Your task to perform on an android device: turn pop-ups off in chrome Image 0: 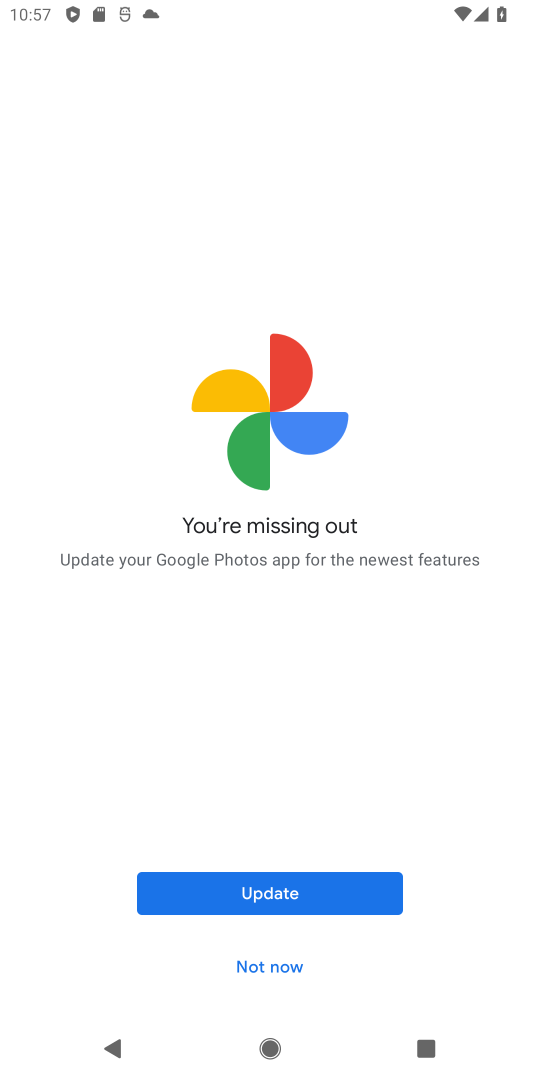
Step 0: press back button
Your task to perform on an android device: turn pop-ups off in chrome Image 1: 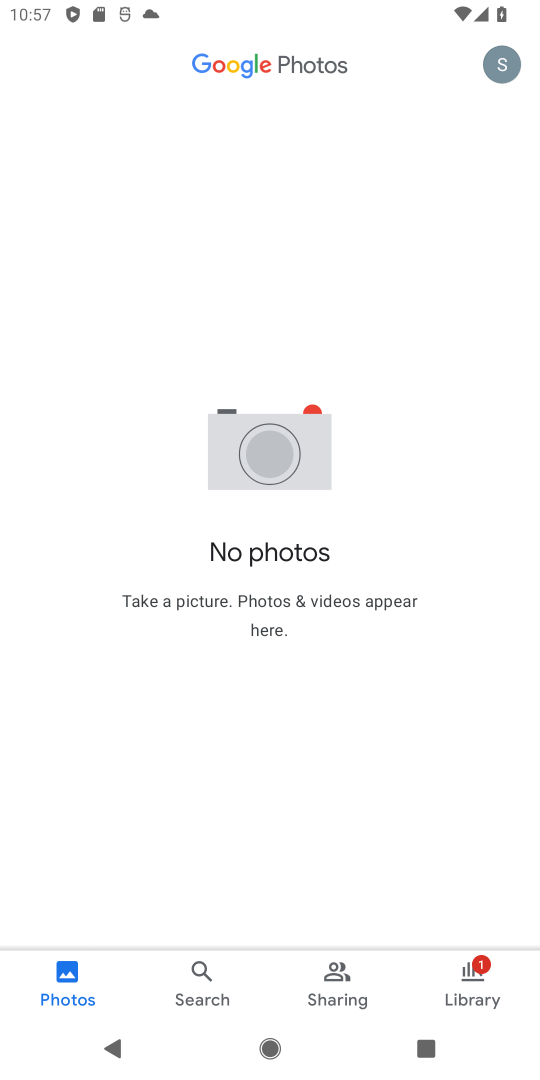
Step 1: press back button
Your task to perform on an android device: turn pop-ups off in chrome Image 2: 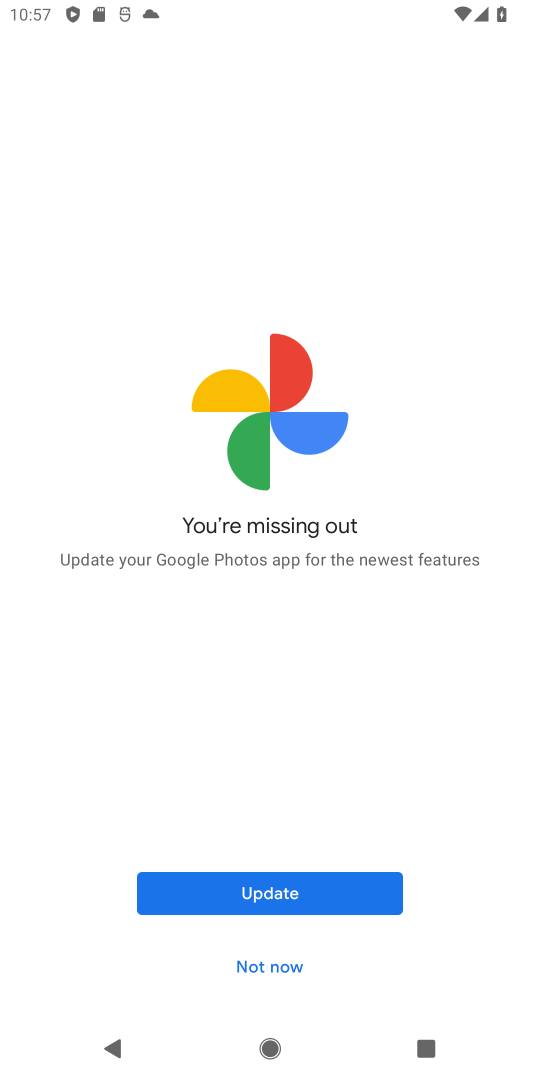
Step 2: press home button
Your task to perform on an android device: turn pop-ups off in chrome Image 3: 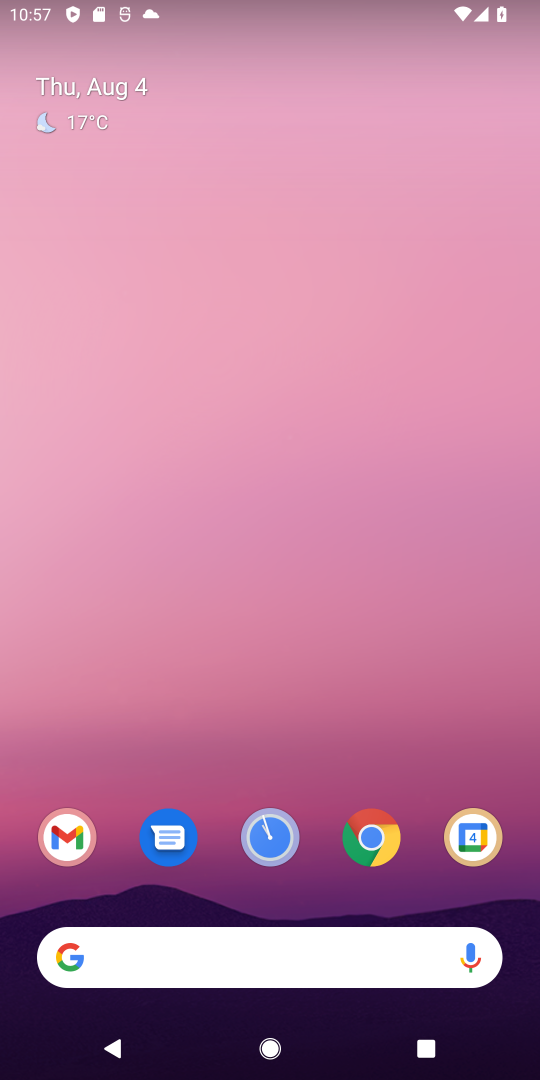
Step 3: drag from (475, 811) to (256, 105)
Your task to perform on an android device: turn pop-ups off in chrome Image 4: 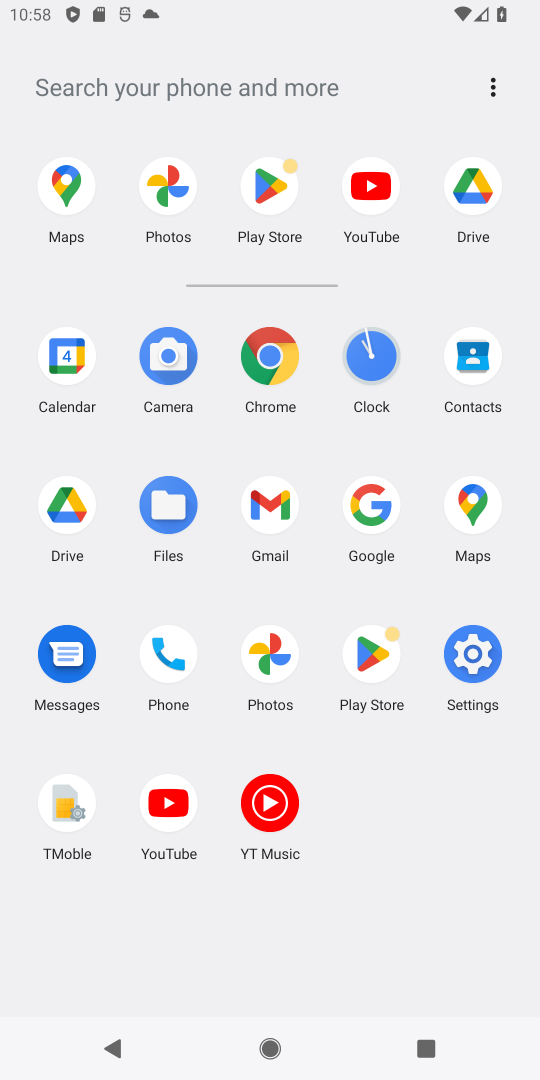
Step 4: click (258, 343)
Your task to perform on an android device: turn pop-ups off in chrome Image 5: 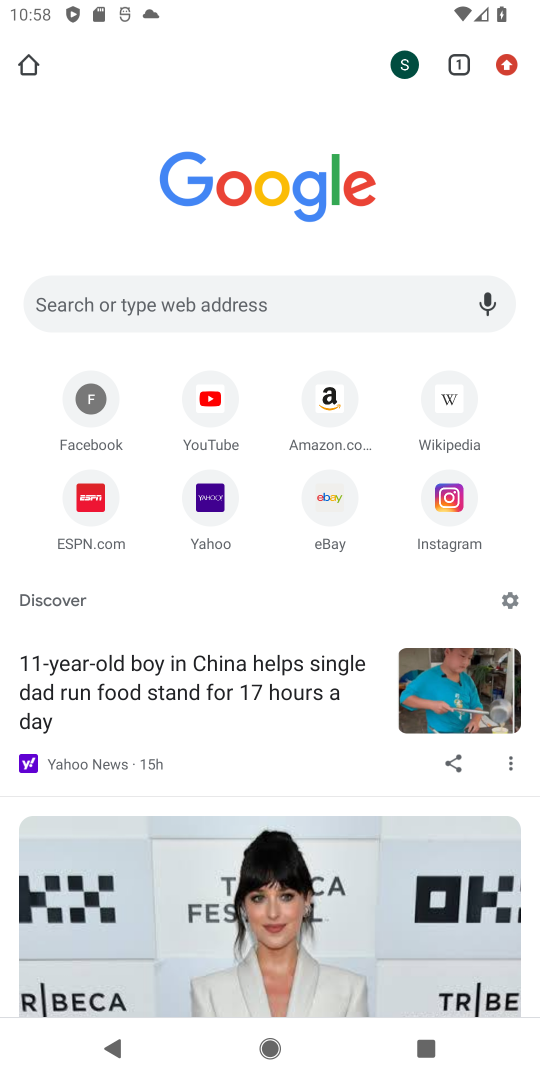
Step 5: click (500, 68)
Your task to perform on an android device: turn pop-ups off in chrome Image 6: 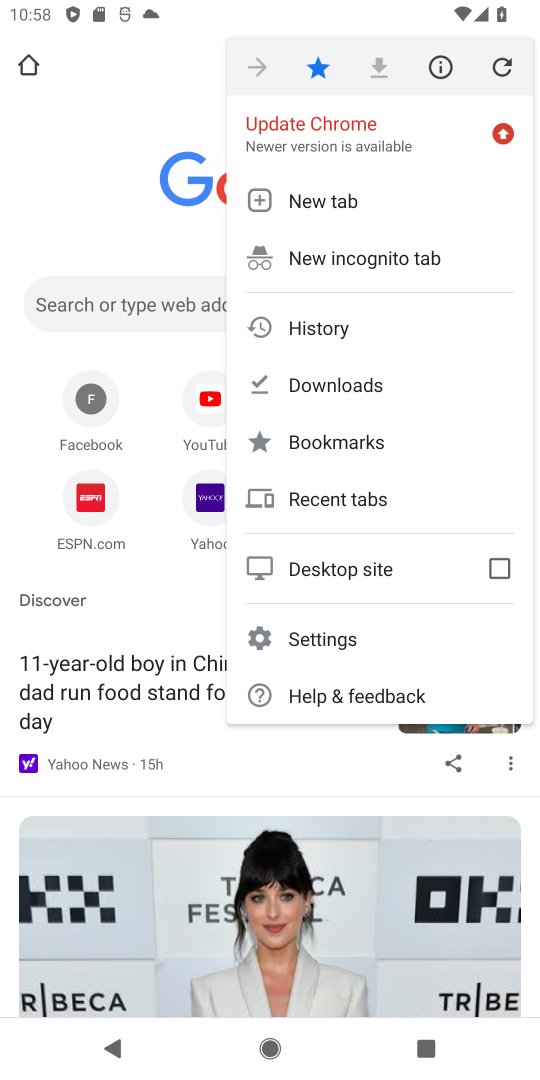
Step 6: click (319, 643)
Your task to perform on an android device: turn pop-ups off in chrome Image 7: 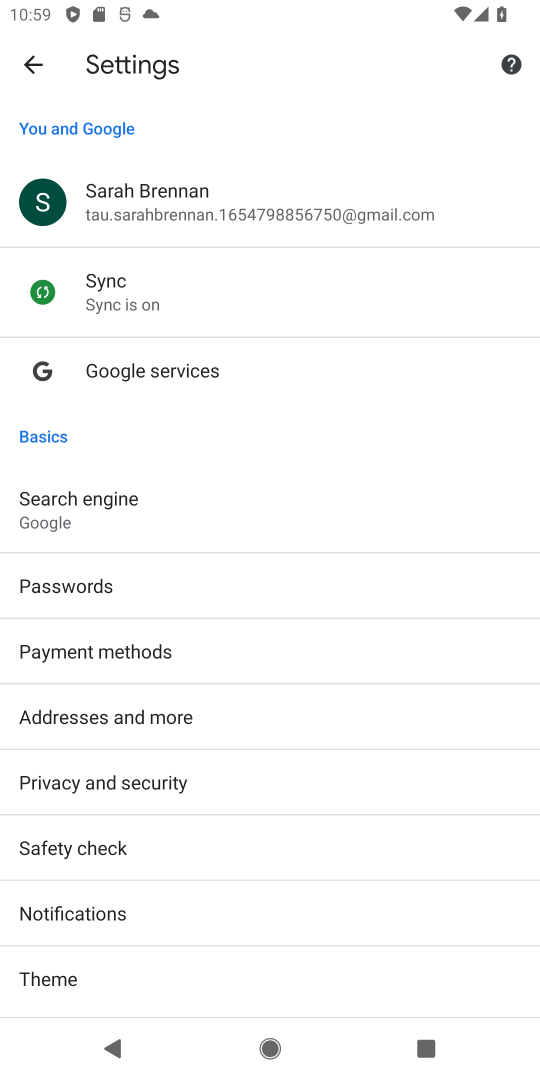
Step 7: drag from (121, 963) to (95, 305)
Your task to perform on an android device: turn pop-ups off in chrome Image 8: 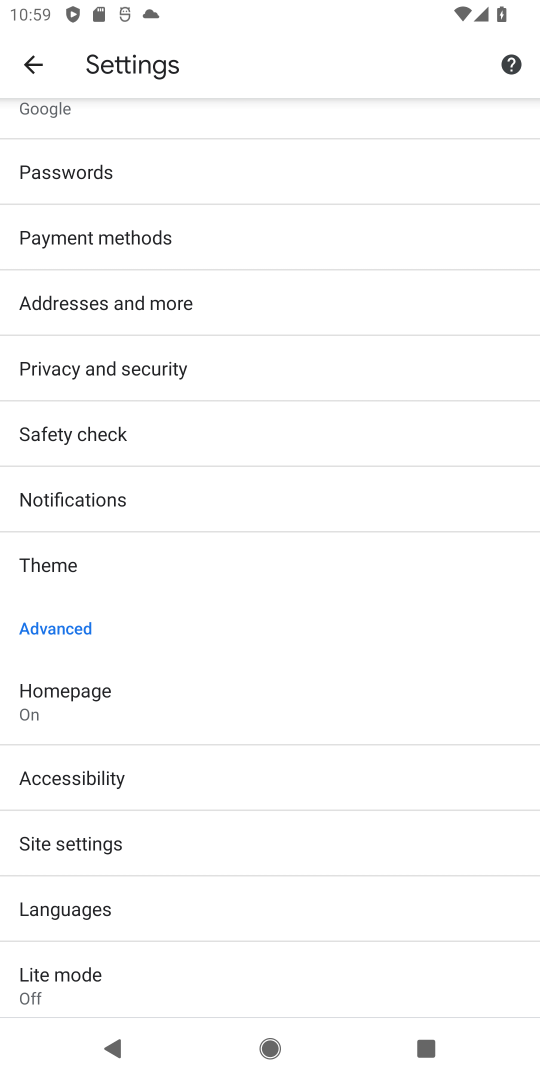
Step 8: click (30, 864)
Your task to perform on an android device: turn pop-ups off in chrome Image 9: 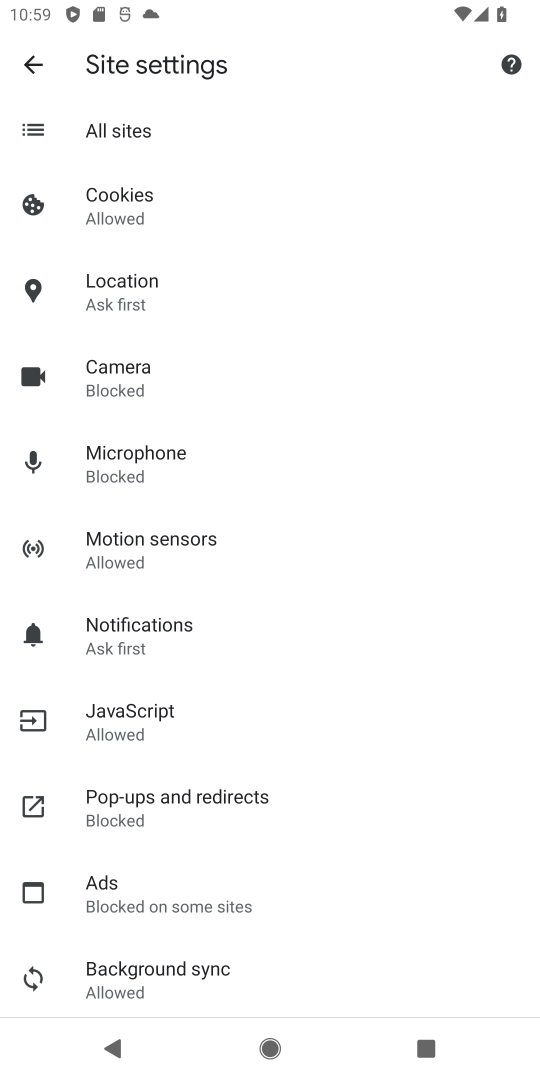
Step 9: click (209, 822)
Your task to perform on an android device: turn pop-ups off in chrome Image 10: 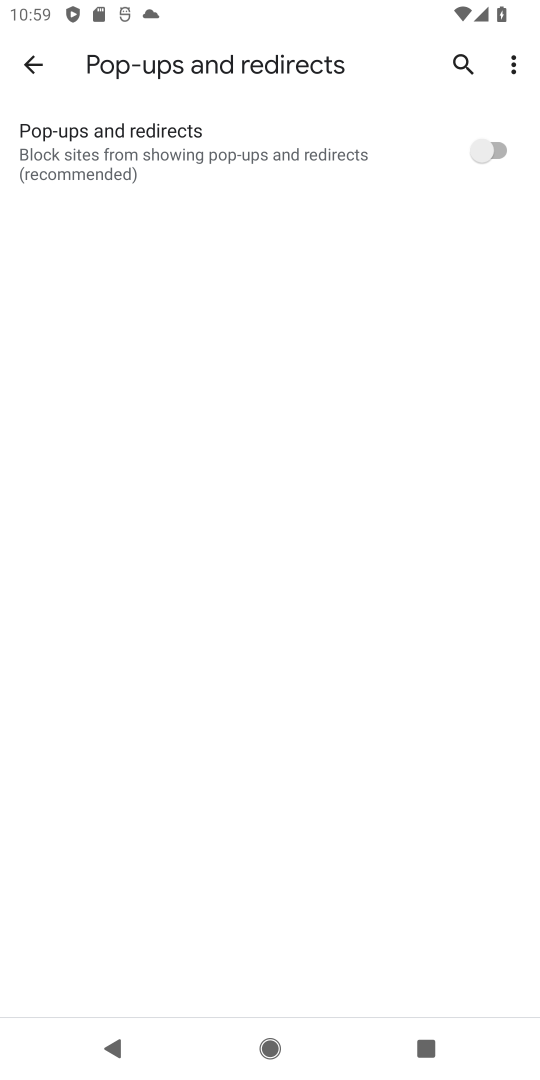
Step 10: task complete